Your task to perform on an android device: set default search engine in the chrome app Image 0: 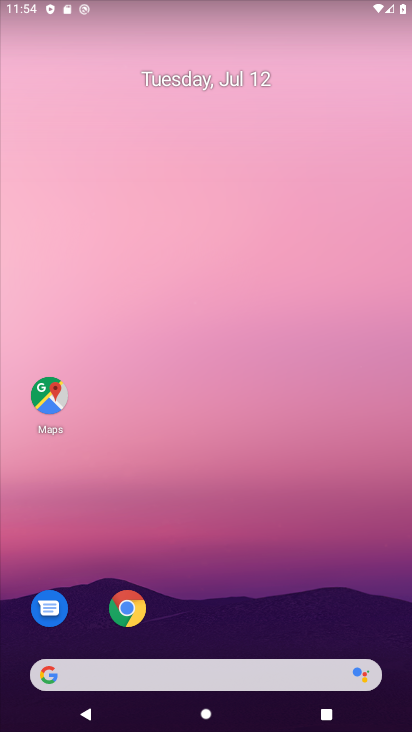
Step 0: click (128, 610)
Your task to perform on an android device: set default search engine in the chrome app Image 1: 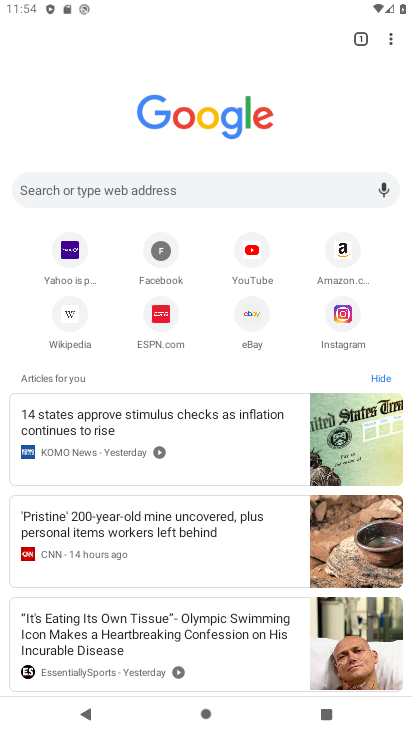
Step 1: drag from (389, 41) to (264, 378)
Your task to perform on an android device: set default search engine in the chrome app Image 2: 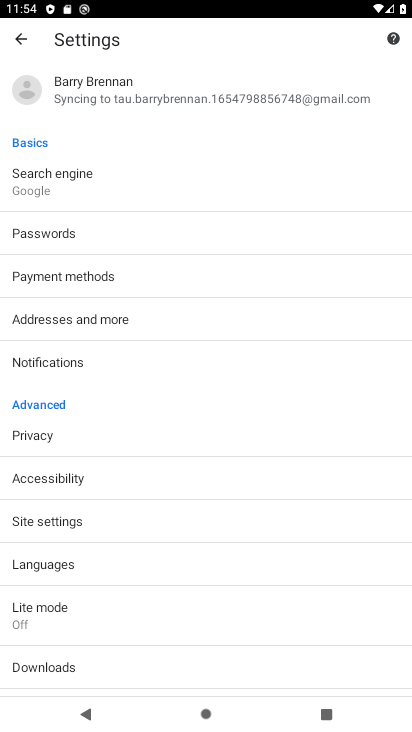
Step 2: click (19, 169)
Your task to perform on an android device: set default search engine in the chrome app Image 3: 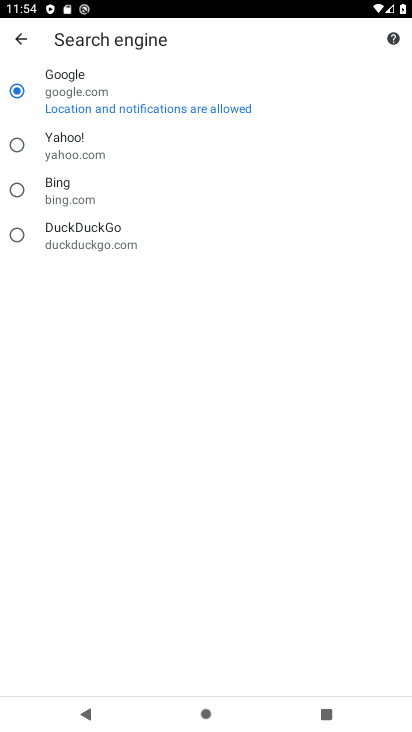
Step 3: click (62, 144)
Your task to perform on an android device: set default search engine in the chrome app Image 4: 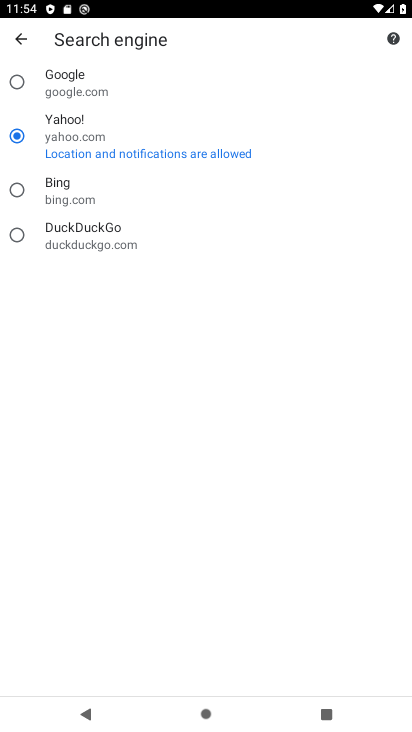
Step 4: task complete